Your task to perform on an android device: Go to eBay Image 0: 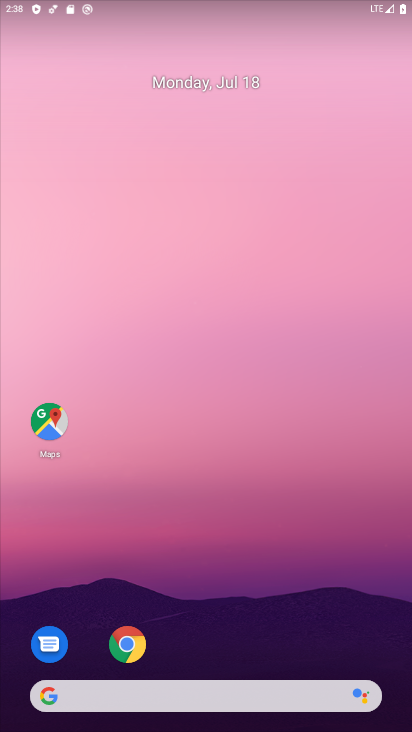
Step 0: click (141, 657)
Your task to perform on an android device: Go to eBay Image 1: 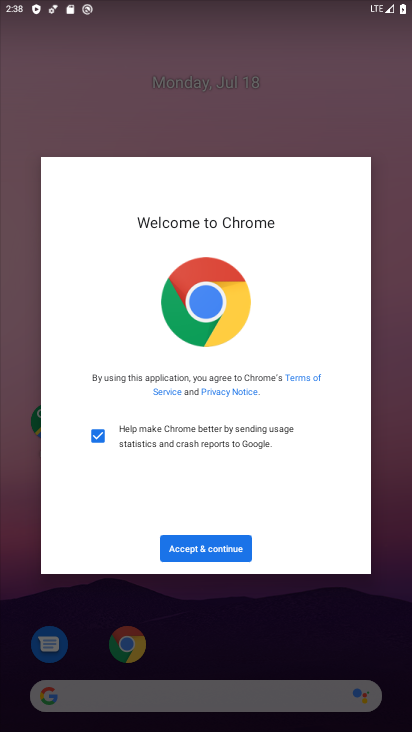
Step 1: click (221, 553)
Your task to perform on an android device: Go to eBay Image 2: 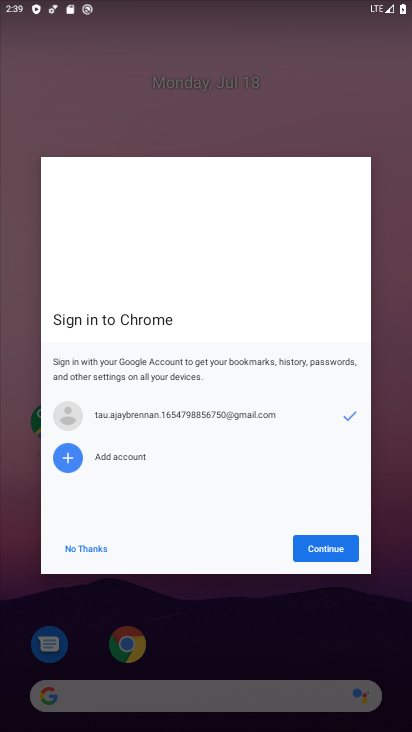
Step 2: click (319, 548)
Your task to perform on an android device: Go to eBay Image 3: 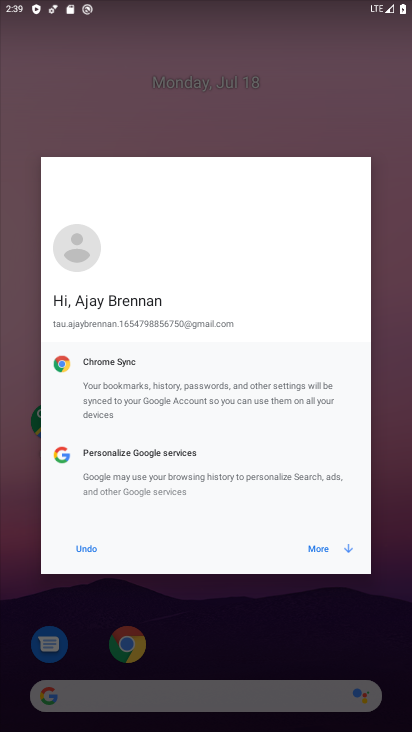
Step 3: click (314, 549)
Your task to perform on an android device: Go to eBay Image 4: 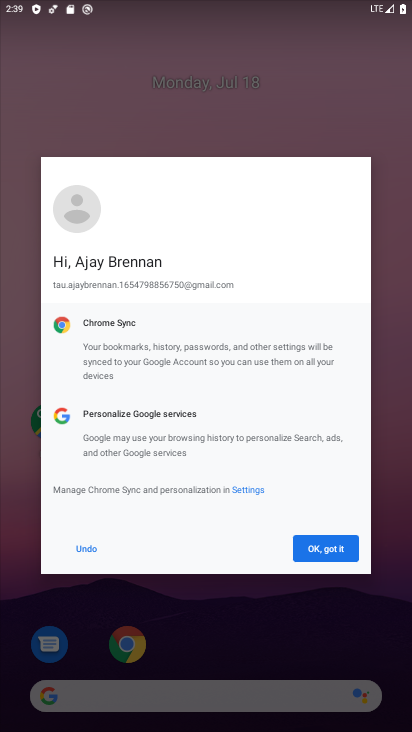
Step 4: click (344, 539)
Your task to perform on an android device: Go to eBay Image 5: 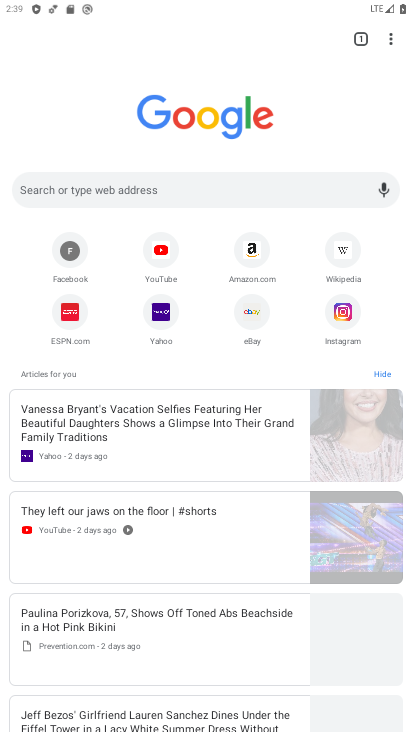
Step 5: click (254, 316)
Your task to perform on an android device: Go to eBay Image 6: 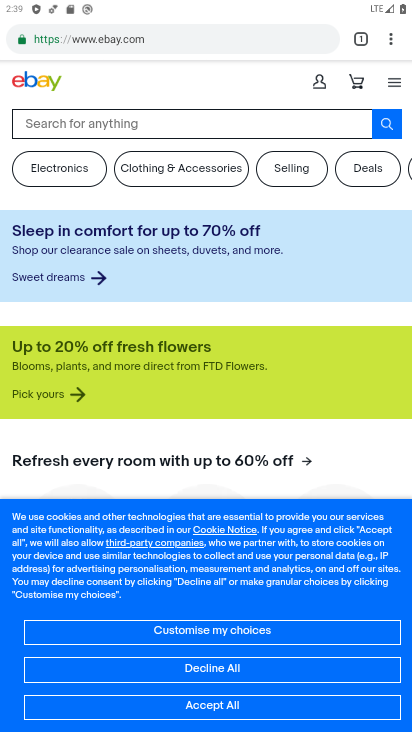
Step 6: task complete